Your task to perform on an android device: install app "Etsy: Buy & Sell Unique Items" Image 0: 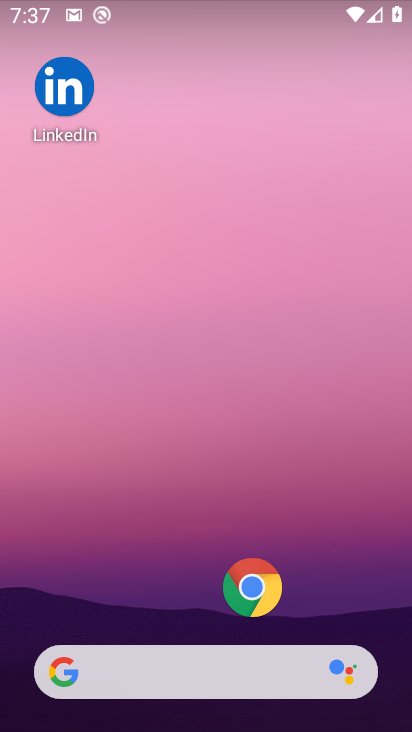
Step 0: drag from (124, 607) to (169, 84)
Your task to perform on an android device: install app "Etsy: Buy & Sell Unique Items" Image 1: 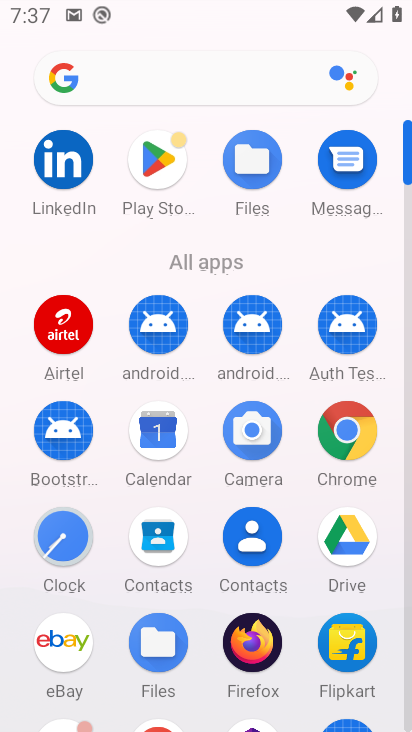
Step 1: click (149, 185)
Your task to perform on an android device: install app "Etsy: Buy & Sell Unique Items" Image 2: 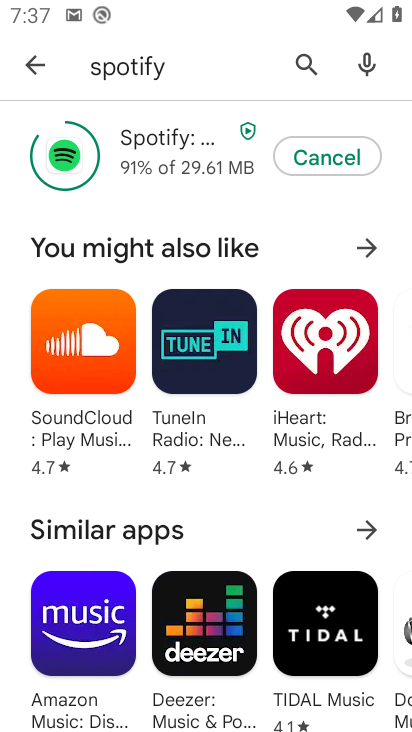
Step 2: click (318, 83)
Your task to perform on an android device: install app "Etsy: Buy & Sell Unique Items" Image 3: 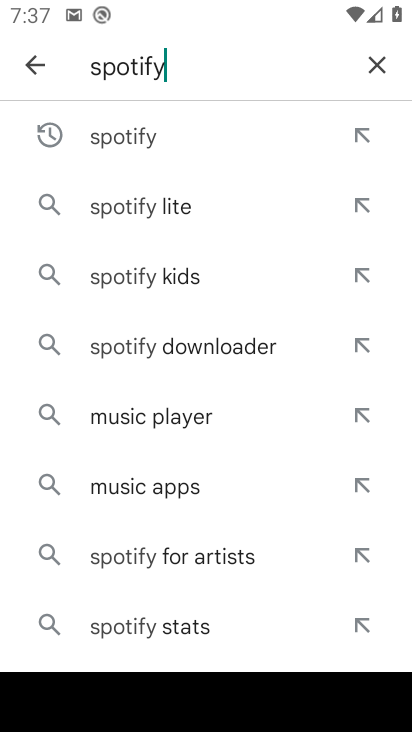
Step 3: click (382, 68)
Your task to perform on an android device: install app "Etsy: Buy & Sell Unique Items" Image 4: 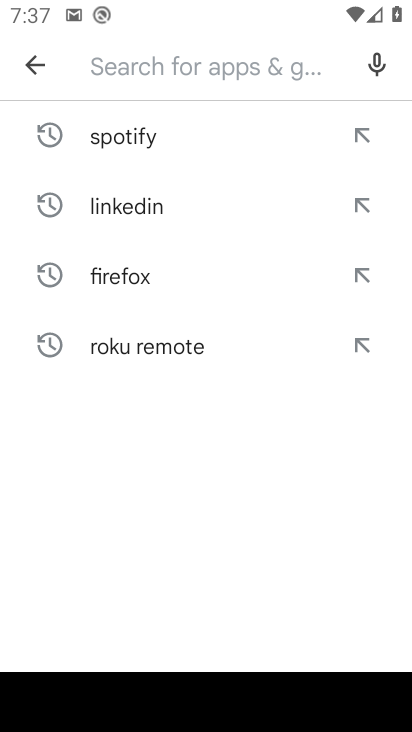
Step 4: type "etsy"
Your task to perform on an android device: install app "Etsy: Buy & Sell Unique Items" Image 5: 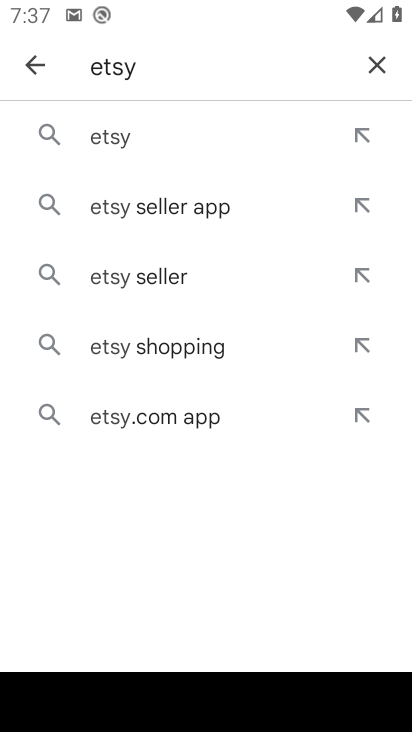
Step 5: click (105, 125)
Your task to perform on an android device: install app "Etsy: Buy & Sell Unique Items" Image 6: 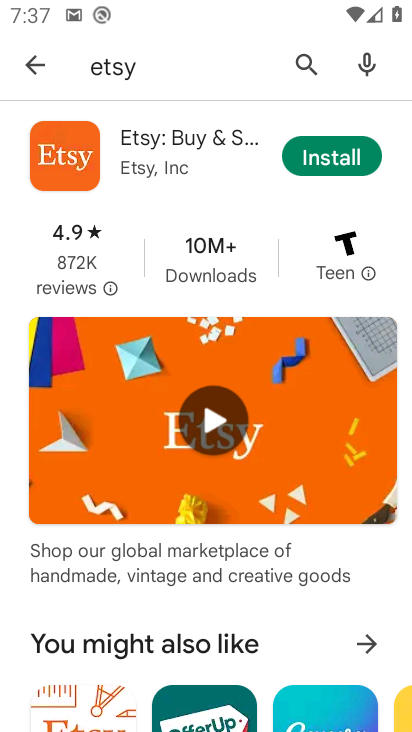
Step 6: click (341, 164)
Your task to perform on an android device: install app "Etsy: Buy & Sell Unique Items" Image 7: 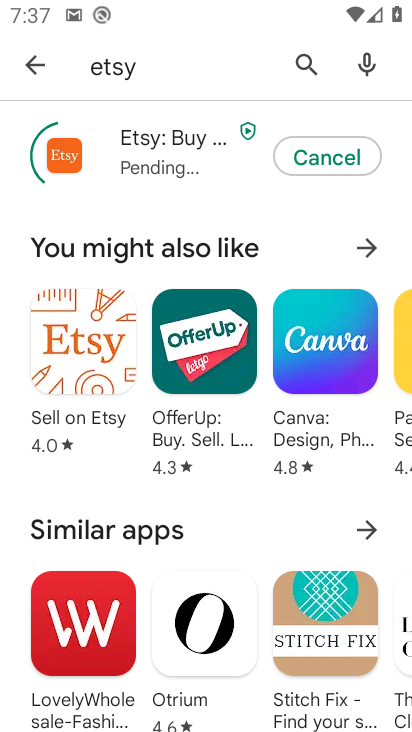
Step 7: task complete